Your task to perform on an android device: toggle translation in the chrome app Image 0: 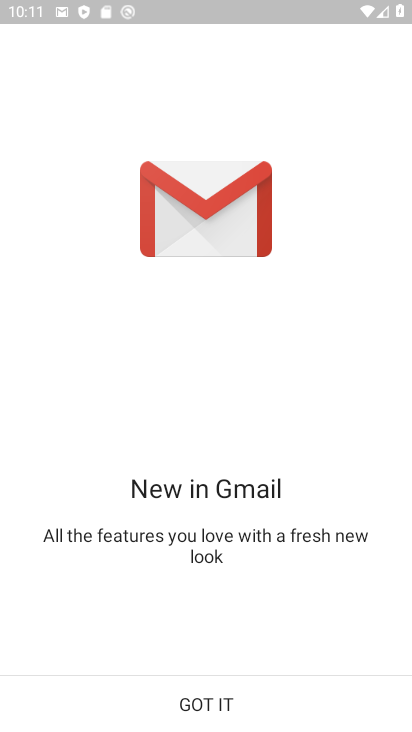
Step 0: press home button
Your task to perform on an android device: toggle translation in the chrome app Image 1: 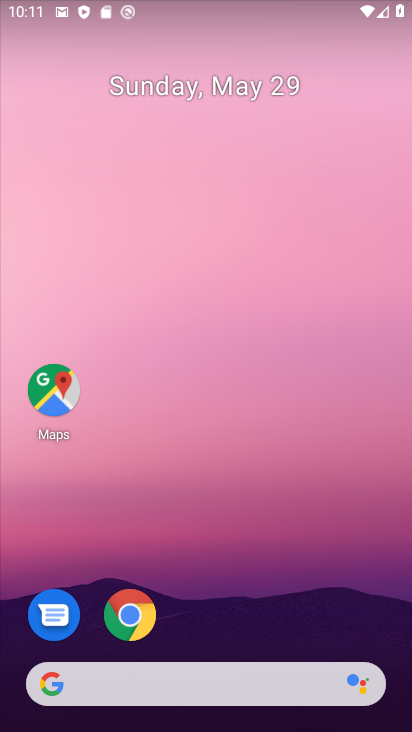
Step 1: drag from (391, 636) to (367, 226)
Your task to perform on an android device: toggle translation in the chrome app Image 2: 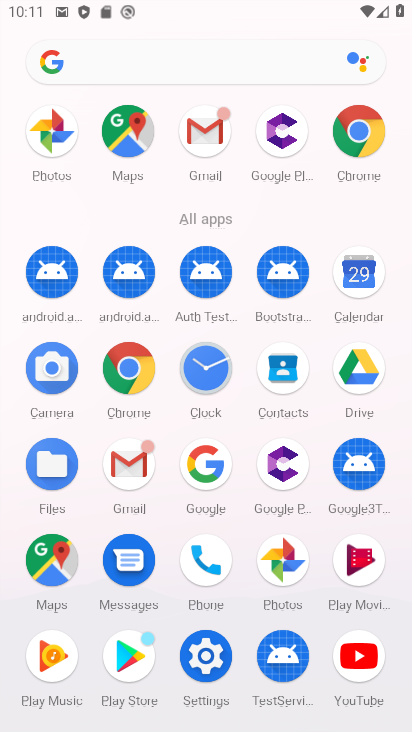
Step 2: click (137, 378)
Your task to perform on an android device: toggle translation in the chrome app Image 3: 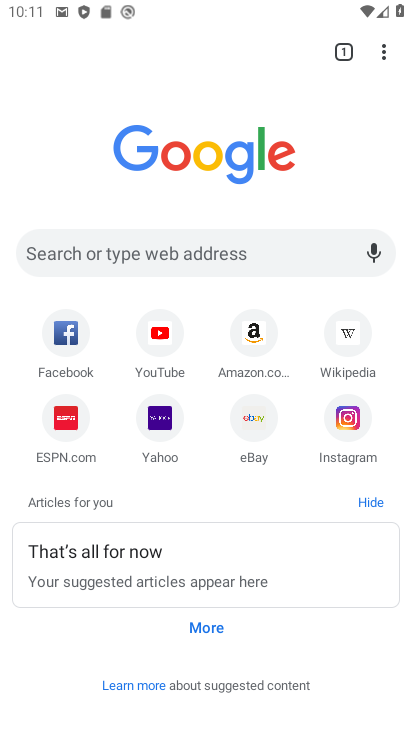
Step 3: click (384, 53)
Your task to perform on an android device: toggle translation in the chrome app Image 4: 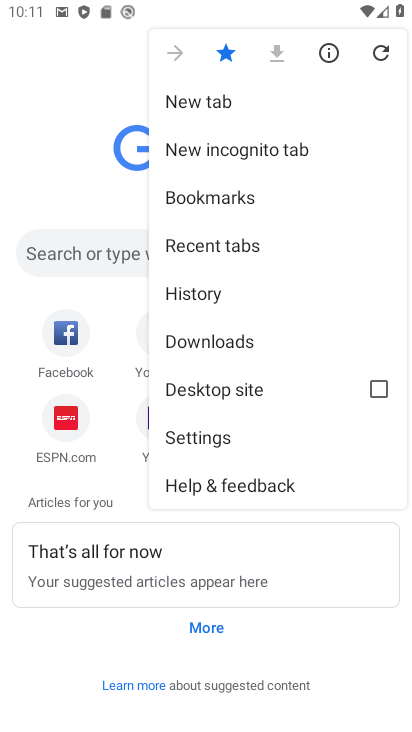
Step 4: click (216, 441)
Your task to perform on an android device: toggle translation in the chrome app Image 5: 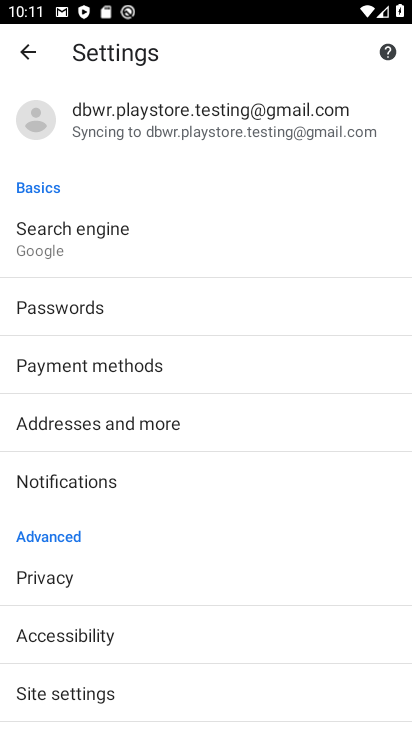
Step 5: drag from (296, 531) to (303, 440)
Your task to perform on an android device: toggle translation in the chrome app Image 6: 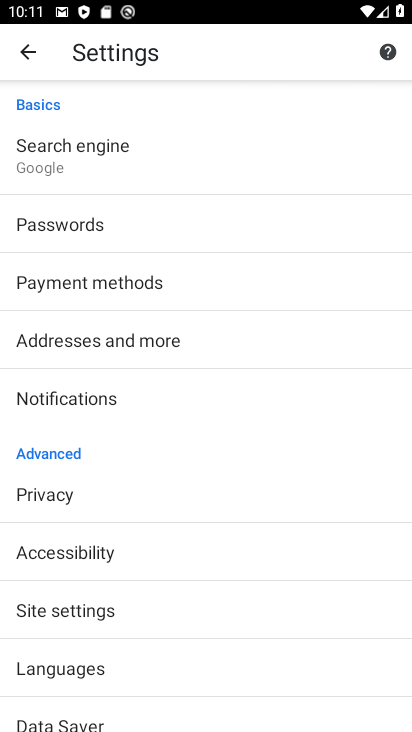
Step 6: drag from (314, 591) to (341, 246)
Your task to perform on an android device: toggle translation in the chrome app Image 7: 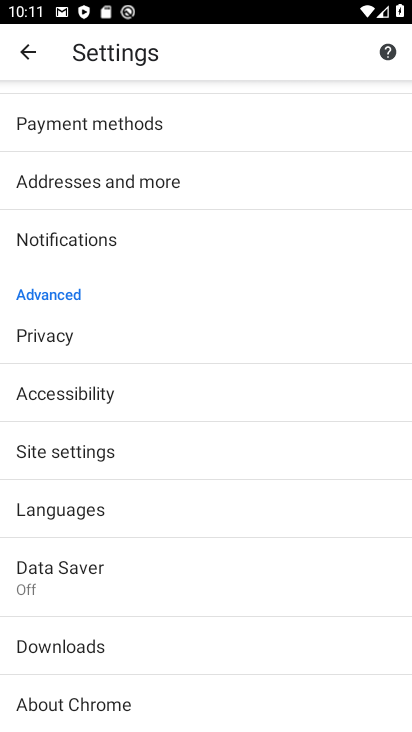
Step 7: drag from (295, 256) to (293, 370)
Your task to perform on an android device: toggle translation in the chrome app Image 8: 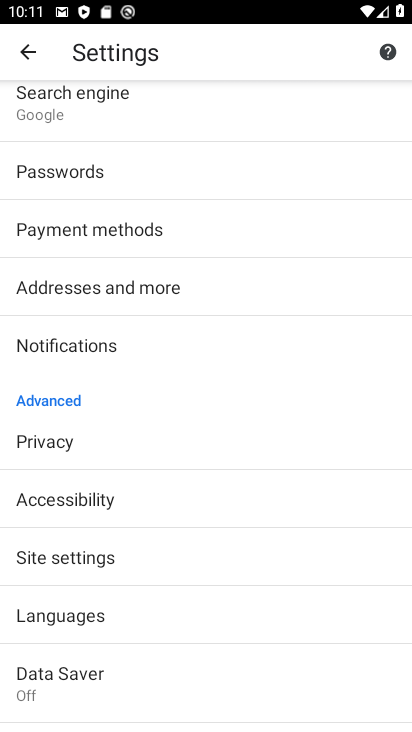
Step 8: click (244, 618)
Your task to perform on an android device: toggle translation in the chrome app Image 9: 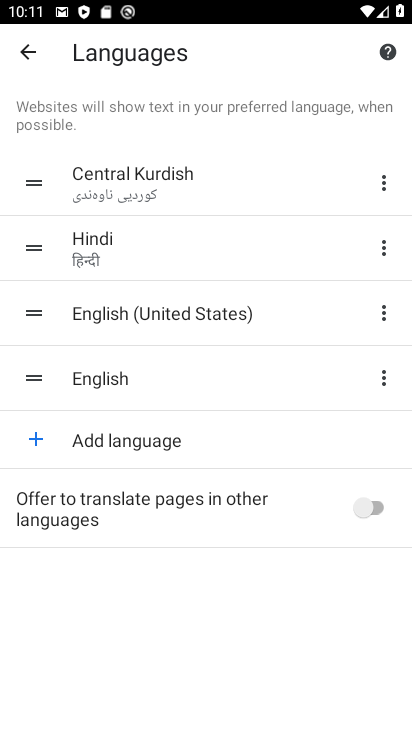
Step 9: click (370, 510)
Your task to perform on an android device: toggle translation in the chrome app Image 10: 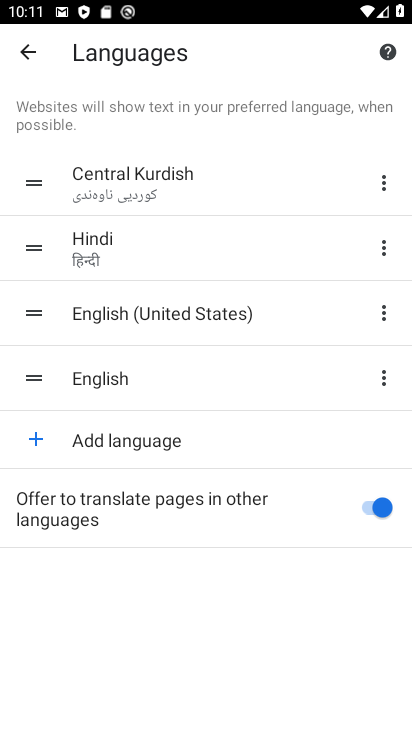
Step 10: task complete